Your task to perform on an android device: toggle javascript in the chrome app Image 0: 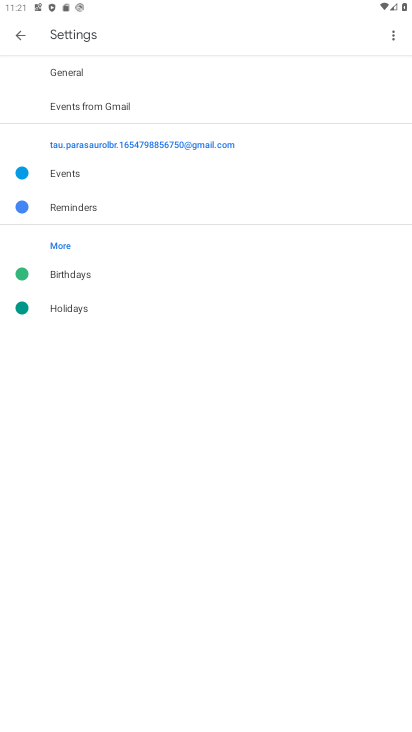
Step 0: press home button
Your task to perform on an android device: toggle javascript in the chrome app Image 1: 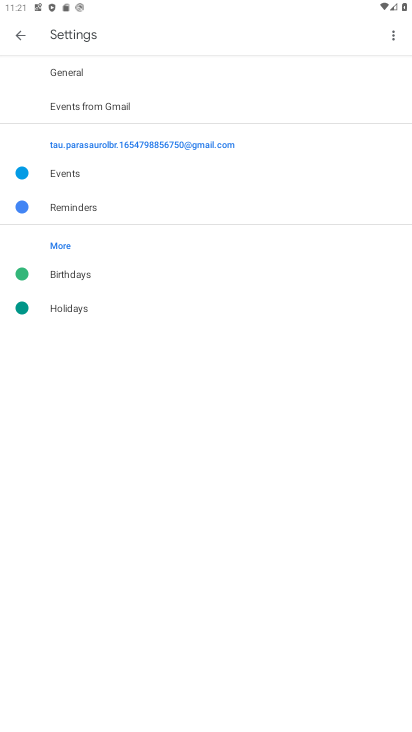
Step 1: press home button
Your task to perform on an android device: toggle javascript in the chrome app Image 2: 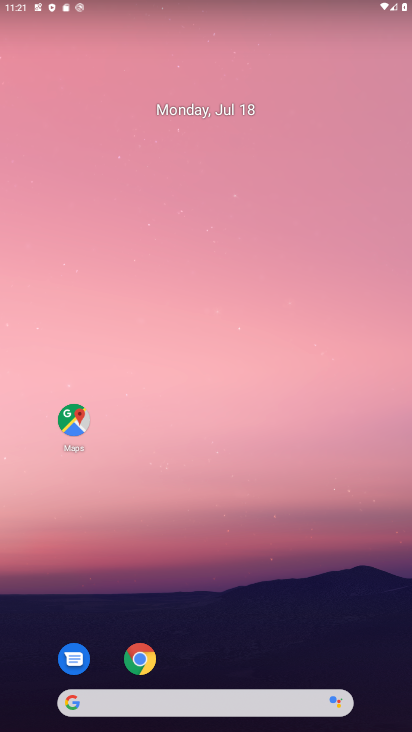
Step 2: click (141, 658)
Your task to perform on an android device: toggle javascript in the chrome app Image 3: 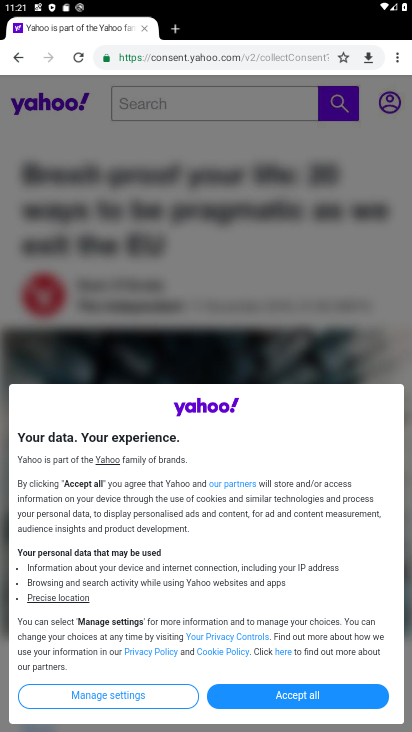
Step 3: click (394, 63)
Your task to perform on an android device: toggle javascript in the chrome app Image 4: 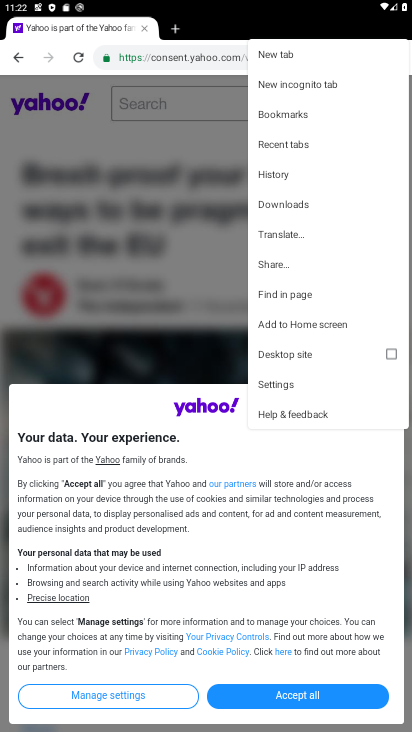
Step 4: click (294, 381)
Your task to perform on an android device: toggle javascript in the chrome app Image 5: 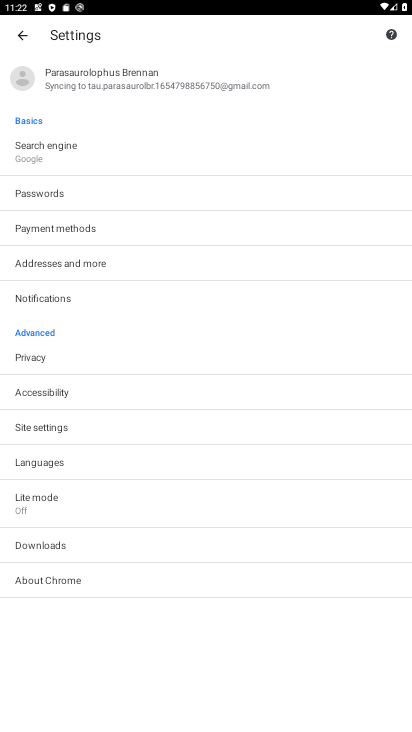
Step 5: click (61, 426)
Your task to perform on an android device: toggle javascript in the chrome app Image 6: 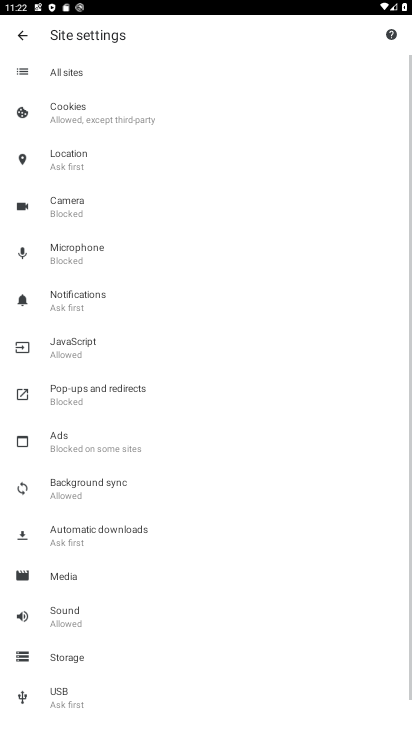
Step 6: click (100, 358)
Your task to perform on an android device: toggle javascript in the chrome app Image 7: 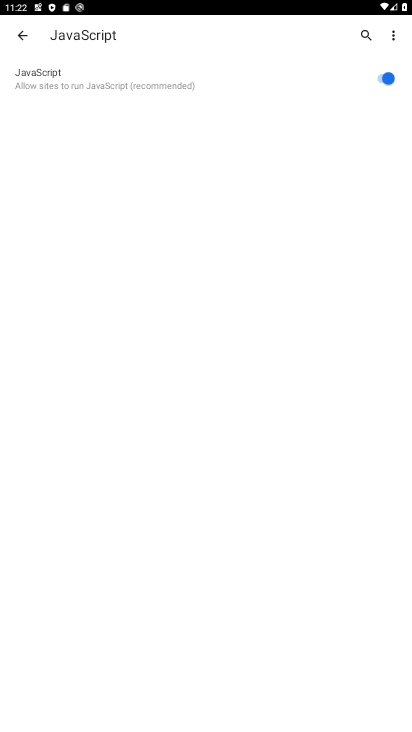
Step 7: click (390, 79)
Your task to perform on an android device: toggle javascript in the chrome app Image 8: 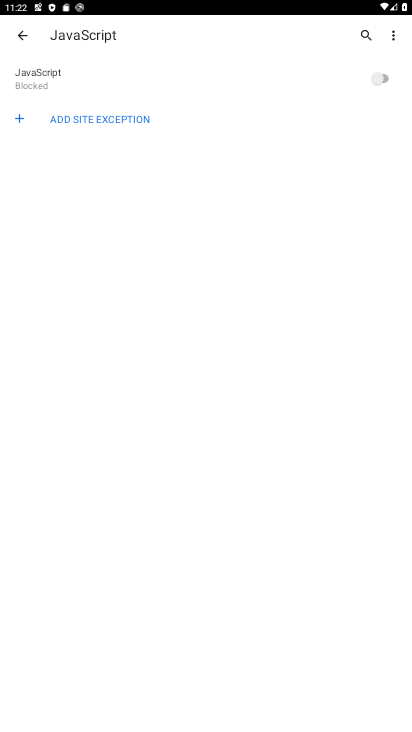
Step 8: task complete